Your task to perform on an android device: Open notification settings Image 0: 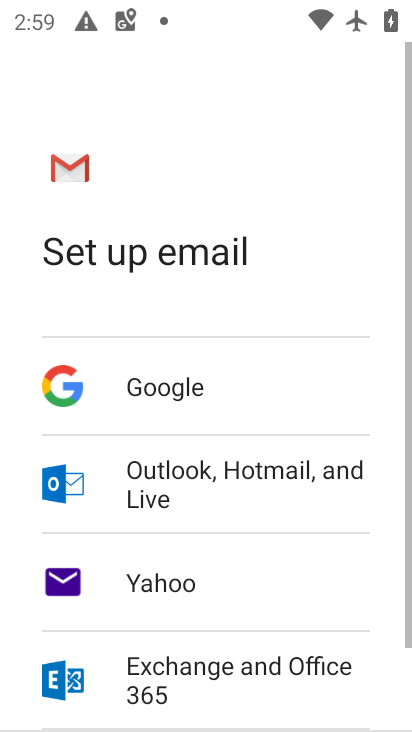
Step 0: press home button
Your task to perform on an android device: Open notification settings Image 1: 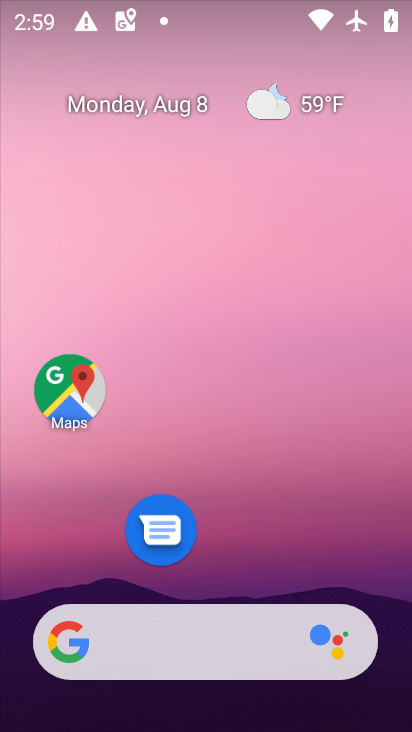
Step 1: drag from (241, 595) to (193, 61)
Your task to perform on an android device: Open notification settings Image 2: 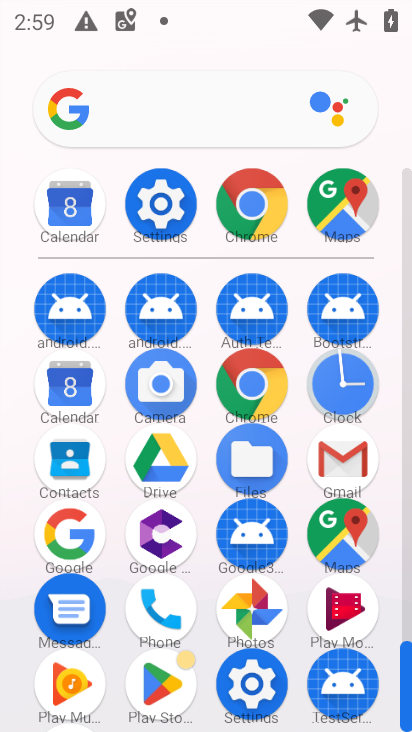
Step 2: click (161, 200)
Your task to perform on an android device: Open notification settings Image 3: 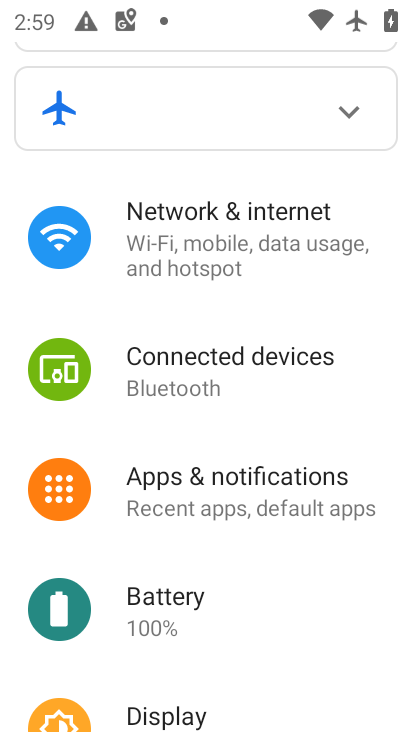
Step 3: click (247, 499)
Your task to perform on an android device: Open notification settings Image 4: 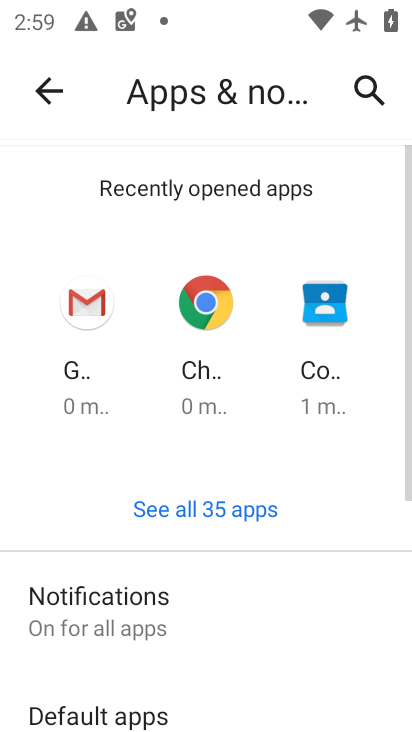
Step 4: click (105, 607)
Your task to perform on an android device: Open notification settings Image 5: 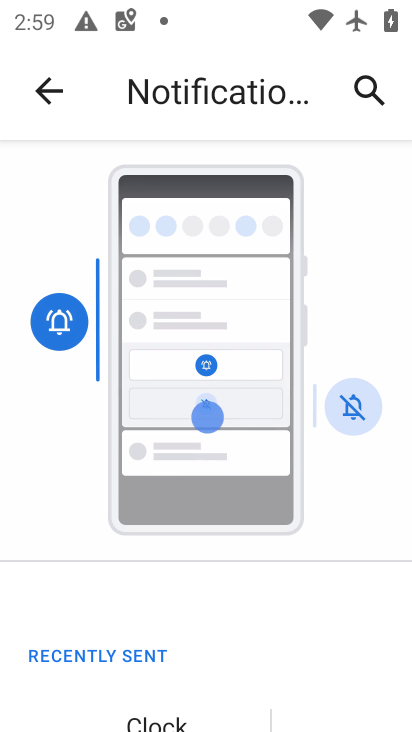
Step 5: task complete